Your task to perform on an android device: Search for "dell xps" on bestbuy, select the first entry, add it to the cart, then select checkout. Image 0: 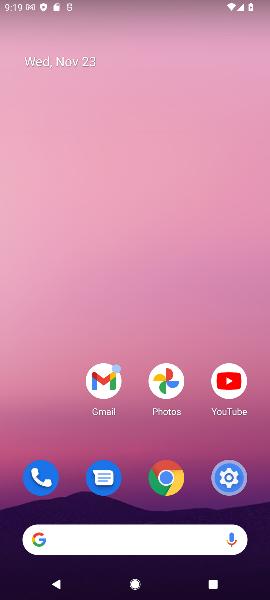
Step 0: click (115, 529)
Your task to perform on an android device: Search for "dell xps" on bestbuy, select the first entry, add it to the cart, then select checkout. Image 1: 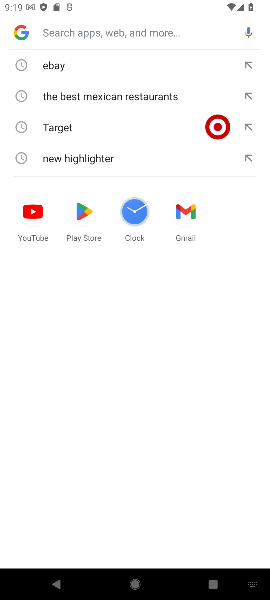
Step 1: type "bestbuy.com"
Your task to perform on an android device: Search for "dell xps" on bestbuy, select the first entry, add it to the cart, then select checkout. Image 2: 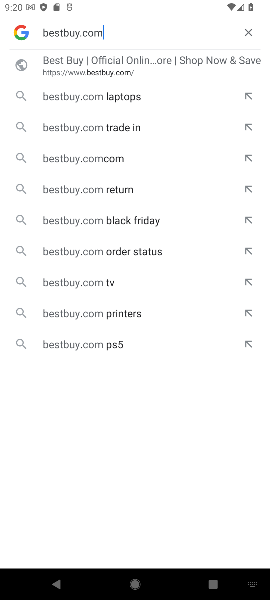
Step 2: click (88, 73)
Your task to perform on an android device: Search for "dell xps" on bestbuy, select the first entry, add it to the cart, then select checkout. Image 3: 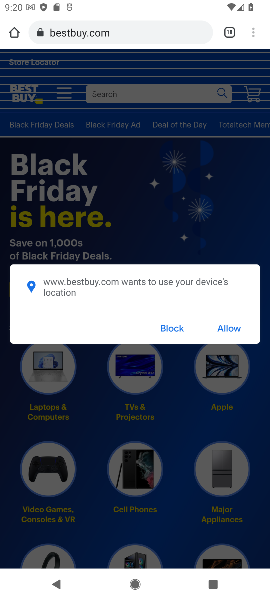
Step 3: click (229, 326)
Your task to perform on an android device: Search for "dell xps" on bestbuy, select the first entry, add it to the cart, then select checkout. Image 4: 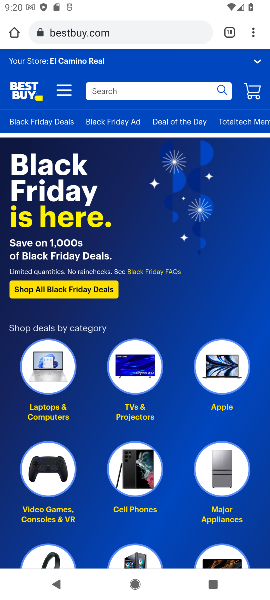
Step 4: click (159, 96)
Your task to perform on an android device: Search for "dell xps" on bestbuy, select the first entry, add it to the cart, then select checkout. Image 5: 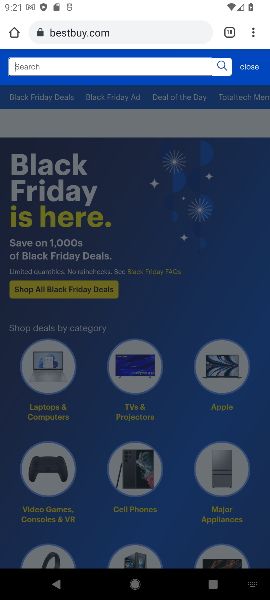
Step 5: type "dell xps"
Your task to perform on an android device: Search for "dell xps" on bestbuy, select the first entry, add it to the cart, then select checkout. Image 6: 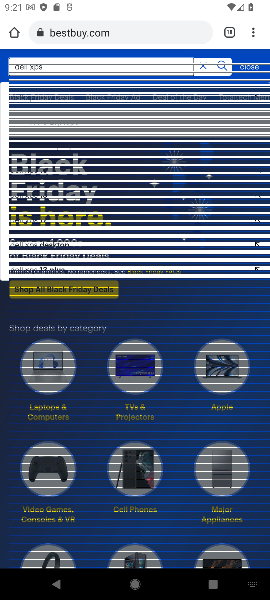
Step 6: click (65, 98)
Your task to perform on an android device: Search for "dell xps" on bestbuy, select the first entry, add it to the cart, then select checkout. Image 7: 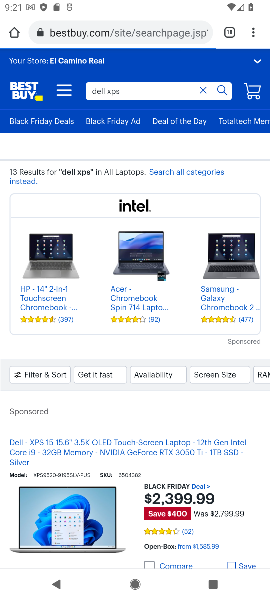
Step 7: click (191, 540)
Your task to perform on an android device: Search for "dell xps" on bestbuy, select the first entry, add it to the cart, then select checkout. Image 8: 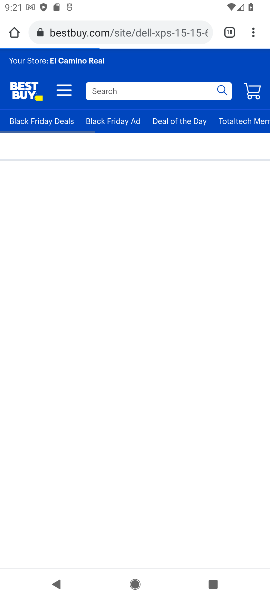
Step 8: drag from (196, 499) to (207, 352)
Your task to perform on an android device: Search for "dell xps" on bestbuy, select the first entry, add it to the cart, then select checkout. Image 9: 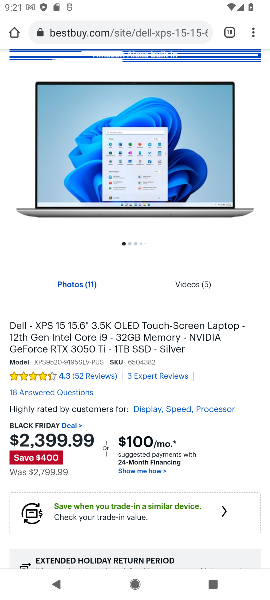
Step 9: drag from (60, 452) to (72, 335)
Your task to perform on an android device: Search for "dell xps" on bestbuy, select the first entry, add it to the cart, then select checkout. Image 10: 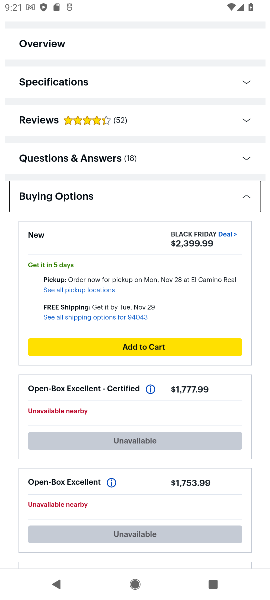
Step 10: click (141, 344)
Your task to perform on an android device: Search for "dell xps" on bestbuy, select the first entry, add it to the cart, then select checkout. Image 11: 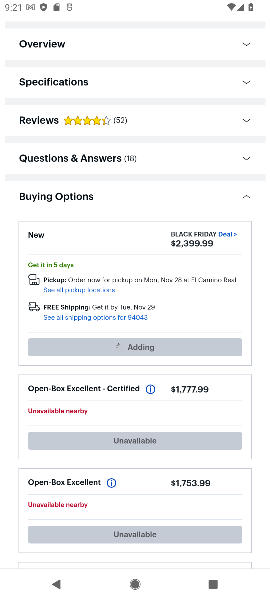
Step 11: task complete